Your task to perform on an android device: Go to wifi settings Image 0: 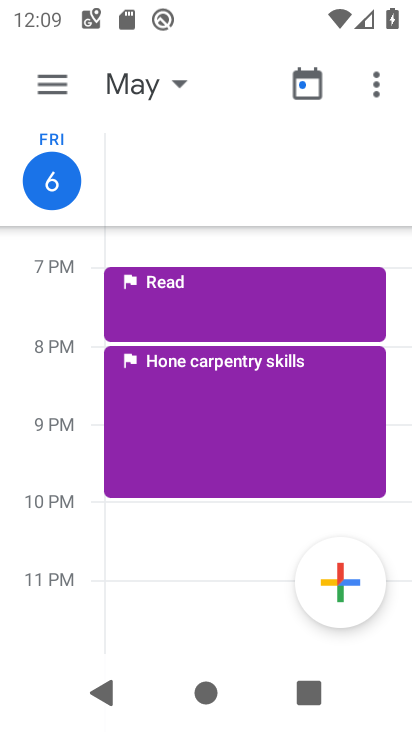
Step 0: press home button
Your task to perform on an android device: Go to wifi settings Image 1: 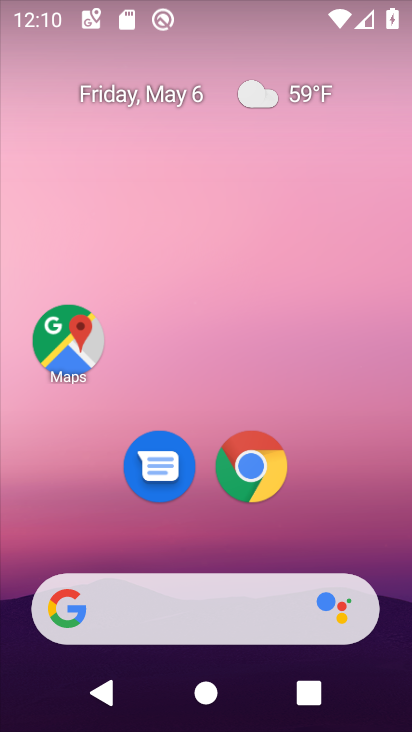
Step 1: drag from (368, 521) to (311, 268)
Your task to perform on an android device: Go to wifi settings Image 2: 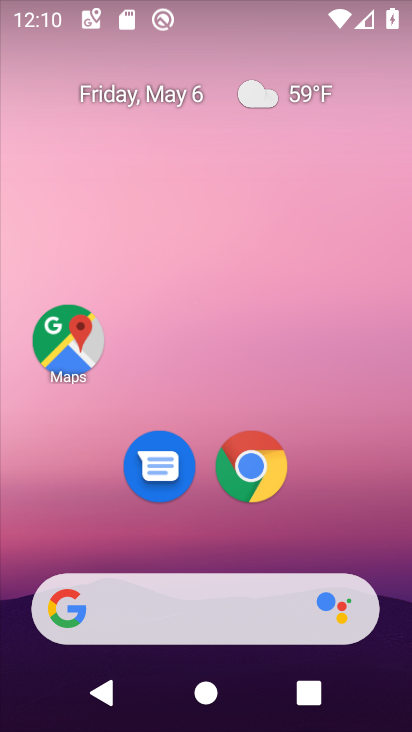
Step 2: drag from (396, 563) to (327, 12)
Your task to perform on an android device: Go to wifi settings Image 3: 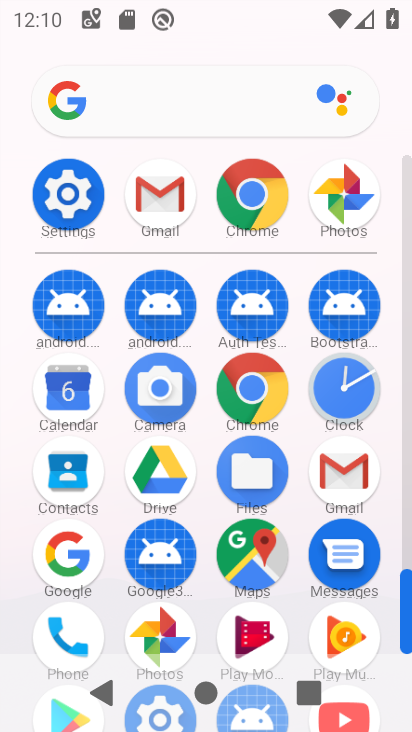
Step 3: click (83, 181)
Your task to perform on an android device: Go to wifi settings Image 4: 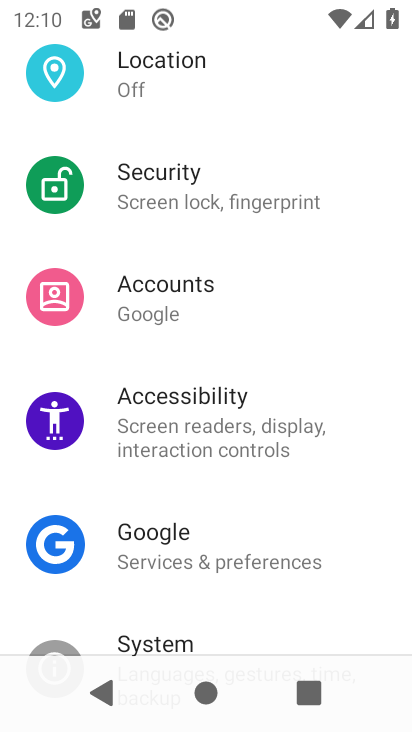
Step 4: drag from (321, 136) to (284, 603)
Your task to perform on an android device: Go to wifi settings Image 5: 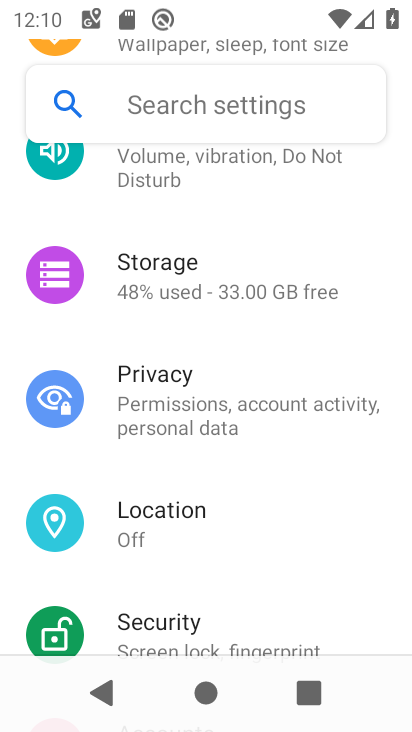
Step 5: drag from (274, 218) to (243, 642)
Your task to perform on an android device: Go to wifi settings Image 6: 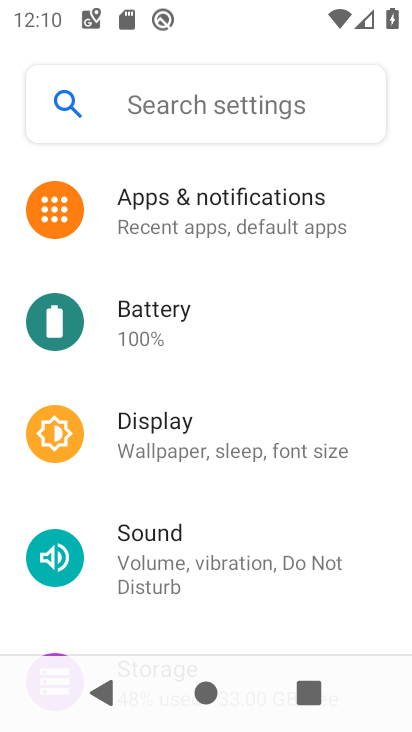
Step 6: drag from (302, 261) to (300, 602)
Your task to perform on an android device: Go to wifi settings Image 7: 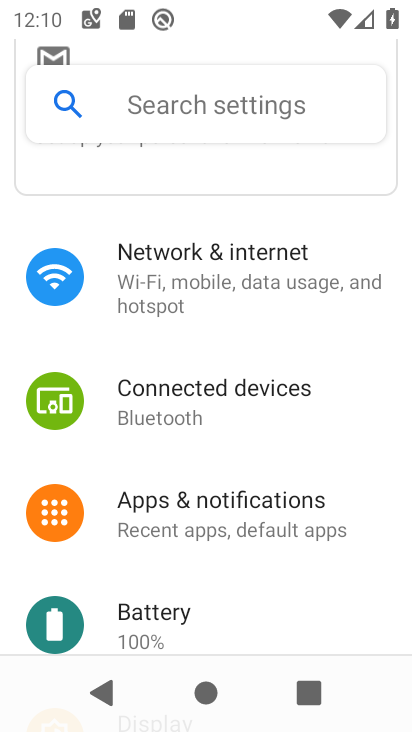
Step 7: click (256, 263)
Your task to perform on an android device: Go to wifi settings Image 8: 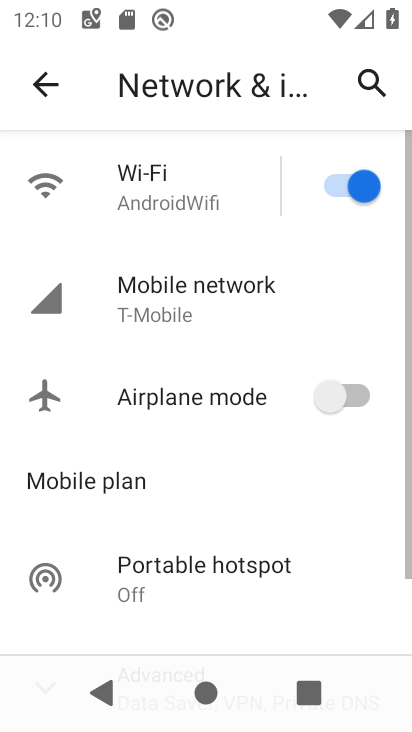
Step 8: click (159, 186)
Your task to perform on an android device: Go to wifi settings Image 9: 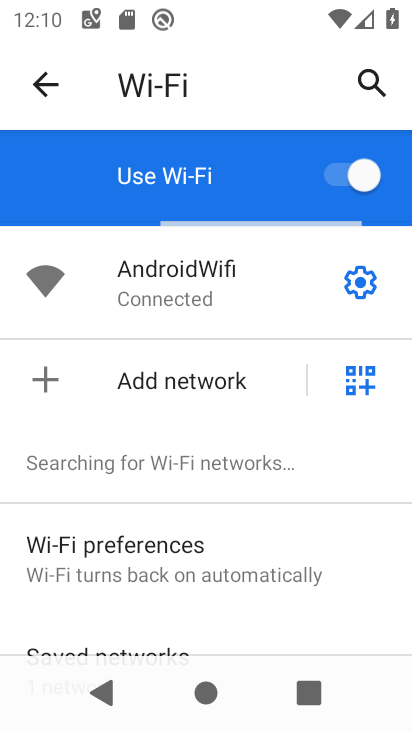
Step 9: task complete